Your task to perform on an android device: Open internet settings Image 0: 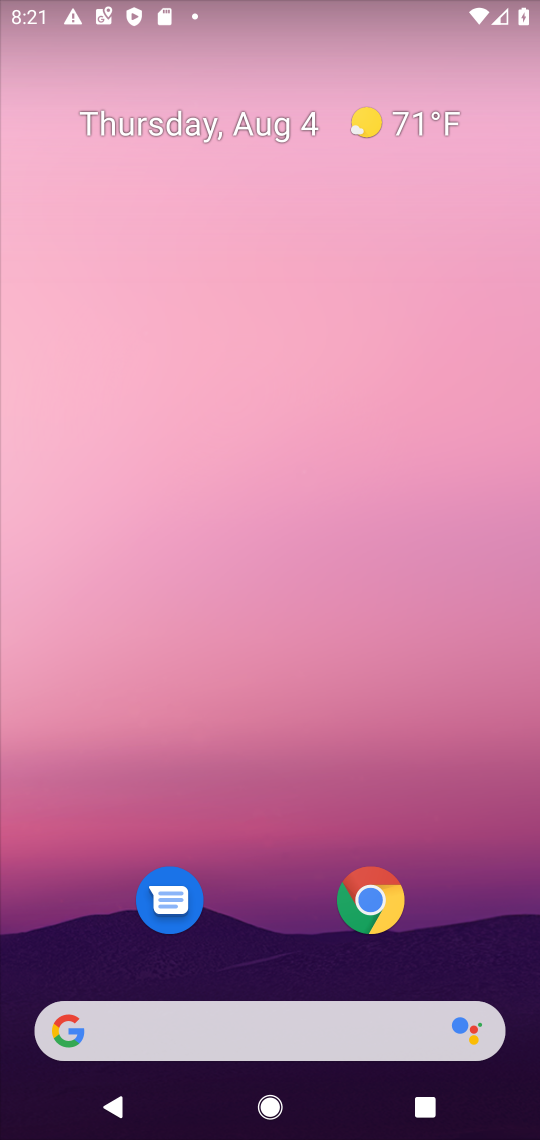
Step 0: click (345, 414)
Your task to perform on an android device: Open internet settings Image 1: 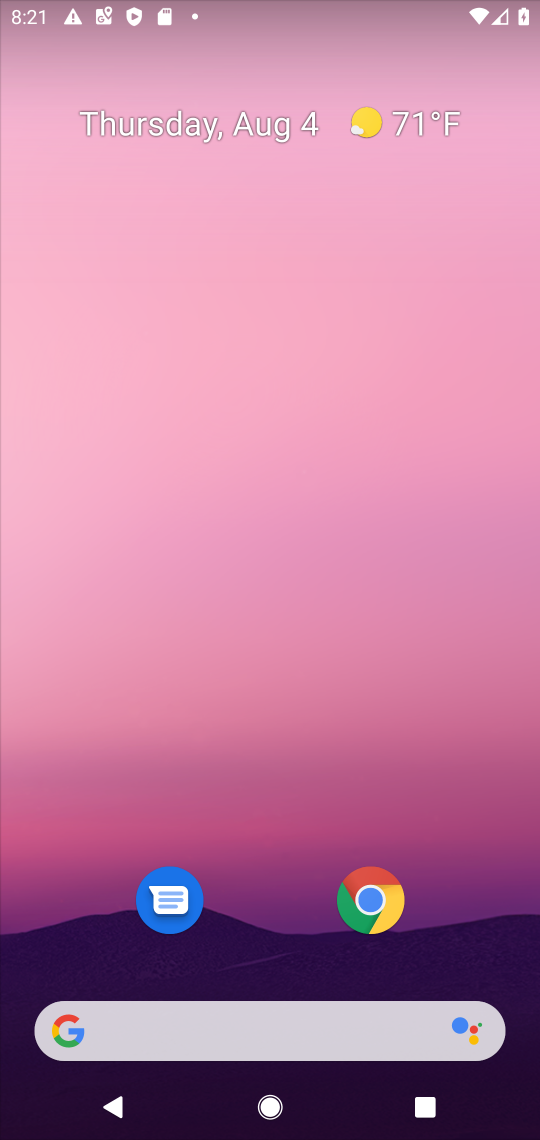
Step 1: drag from (260, 878) to (315, 32)
Your task to perform on an android device: Open internet settings Image 2: 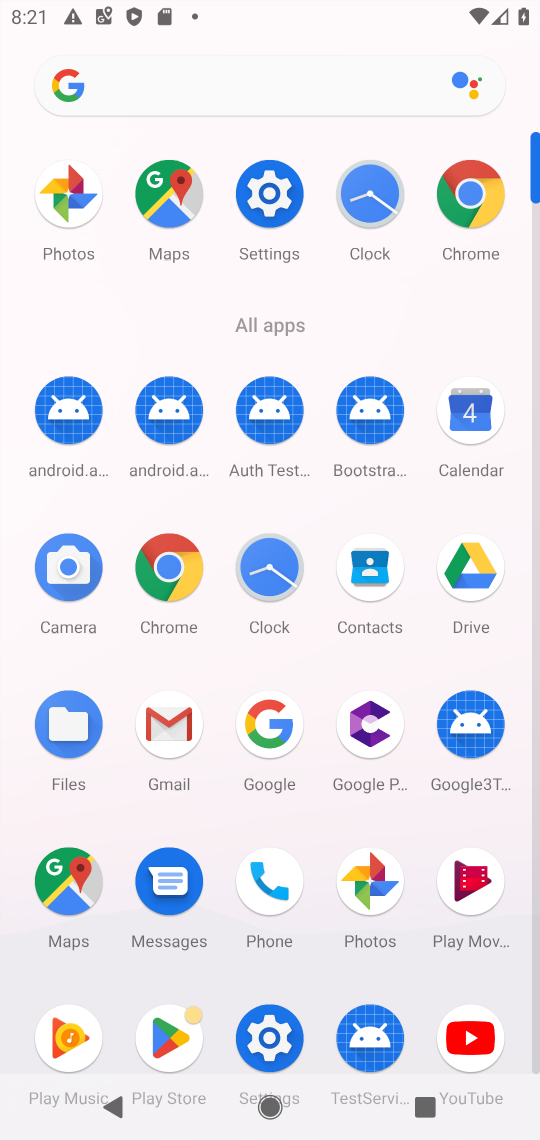
Step 2: click (270, 205)
Your task to perform on an android device: Open internet settings Image 3: 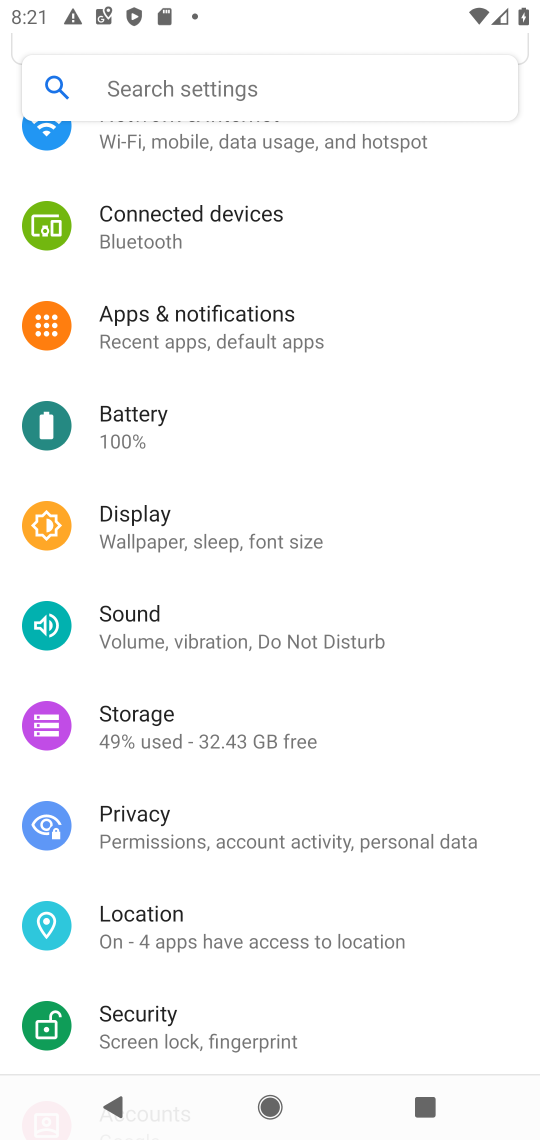
Step 3: drag from (214, 236) to (201, 599)
Your task to perform on an android device: Open internet settings Image 4: 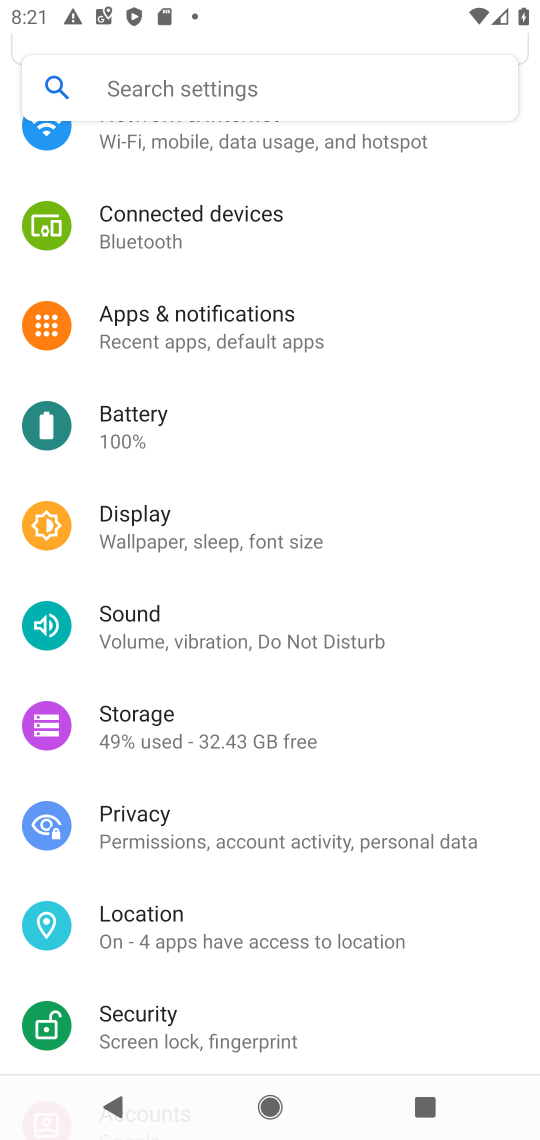
Step 4: drag from (186, 234) to (163, 650)
Your task to perform on an android device: Open internet settings Image 5: 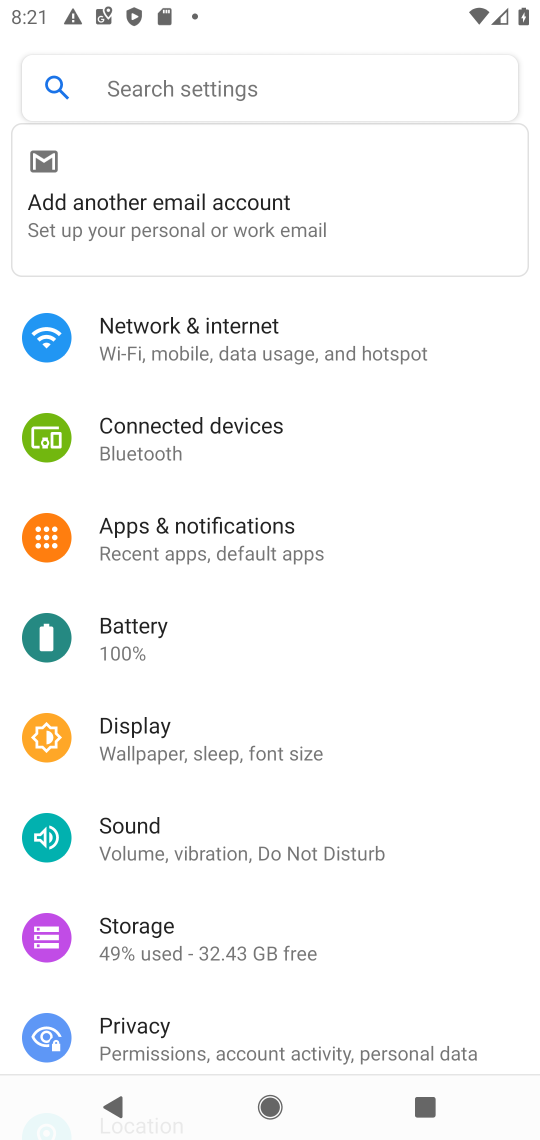
Step 5: click (164, 345)
Your task to perform on an android device: Open internet settings Image 6: 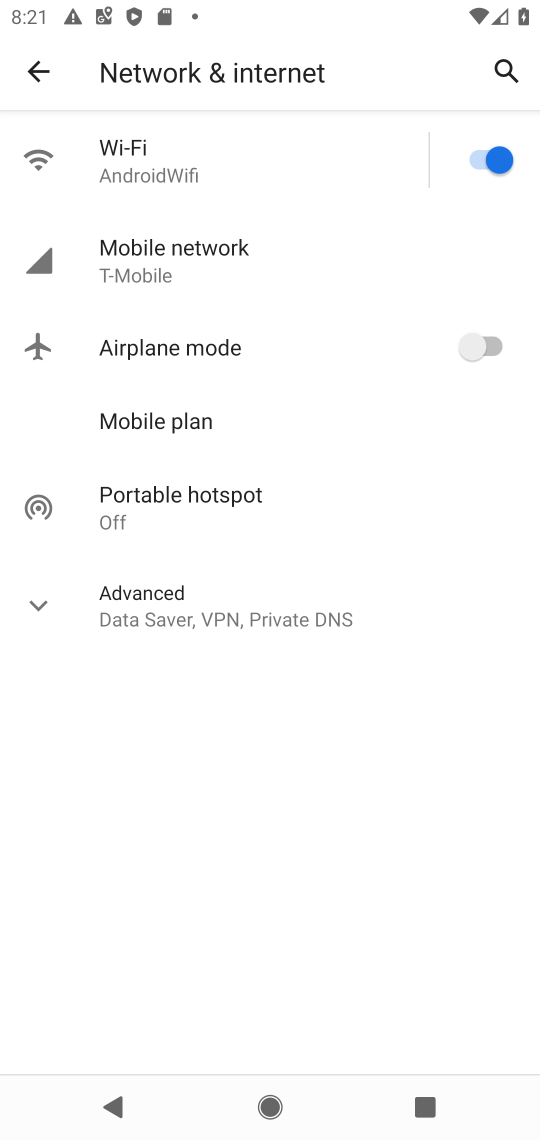
Step 6: task complete